Your task to perform on an android device: What's a good restaurant in San Jose? Image 0: 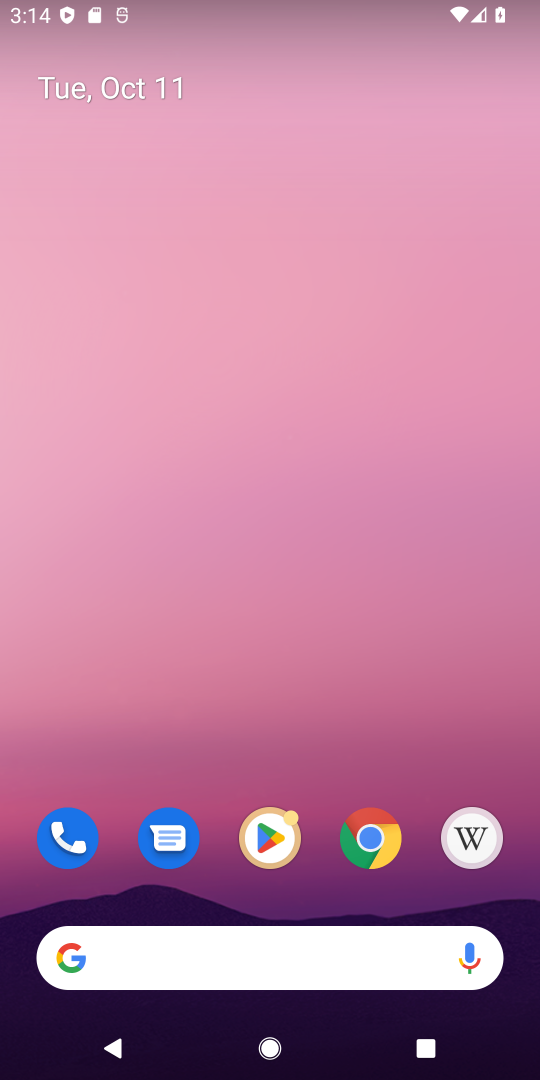
Step 0: click (305, 968)
Your task to perform on an android device: What's a good restaurant in San Jose? Image 1: 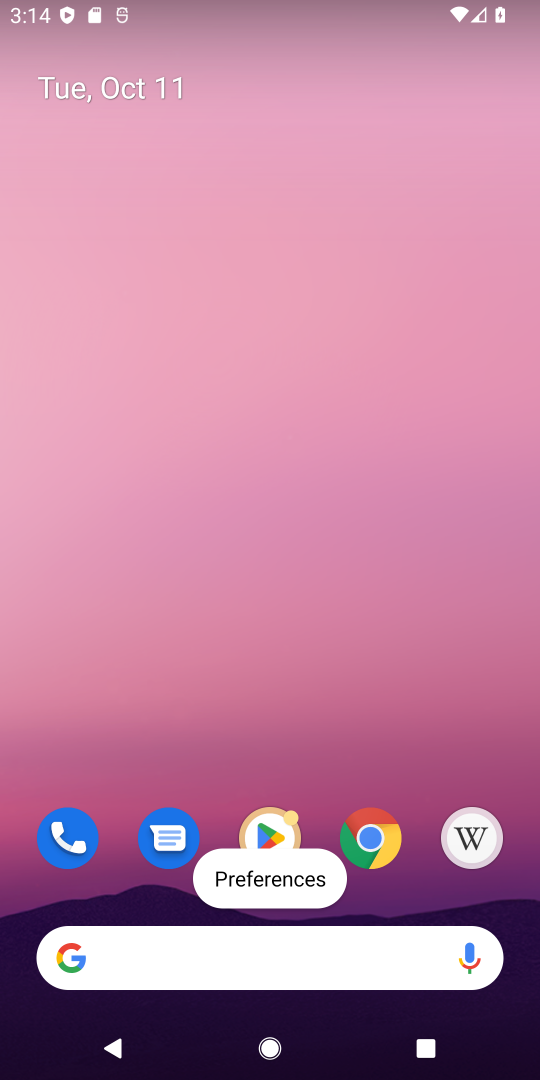
Step 1: click (293, 969)
Your task to perform on an android device: What's a good restaurant in San Jose? Image 2: 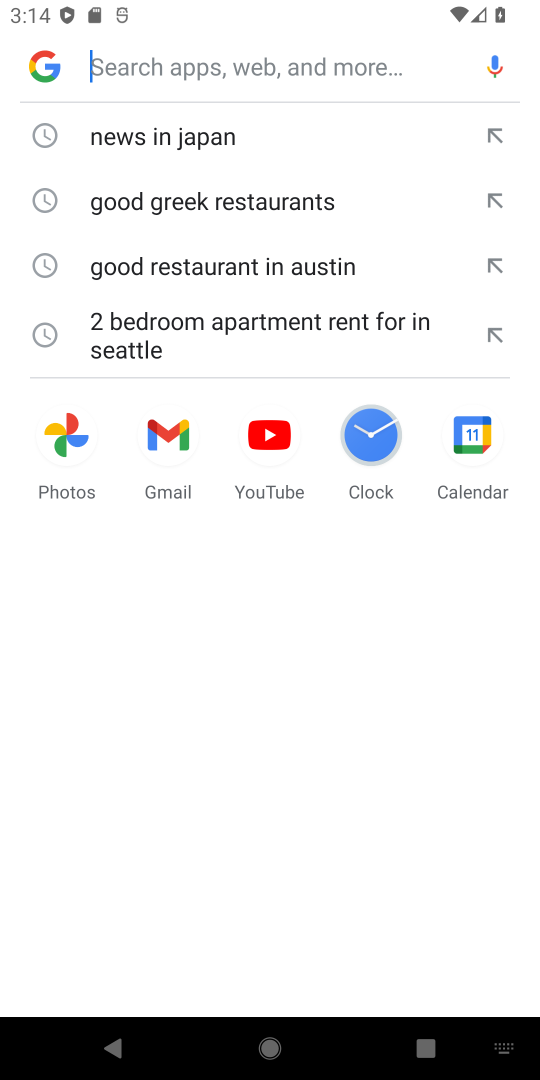
Step 2: type "good restaurant in San Jose"
Your task to perform on an android device: What's a good restaurant in San Jose? Image 3: 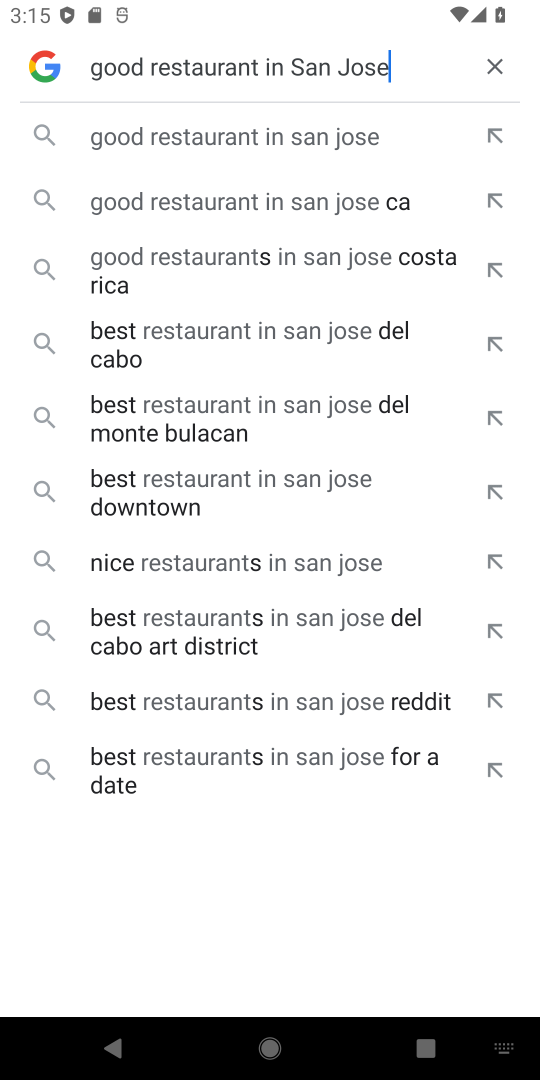
Step 3: click (365, 148)
Your task to perform on an android device: What's a good restaurant in San Jose? Image 4: 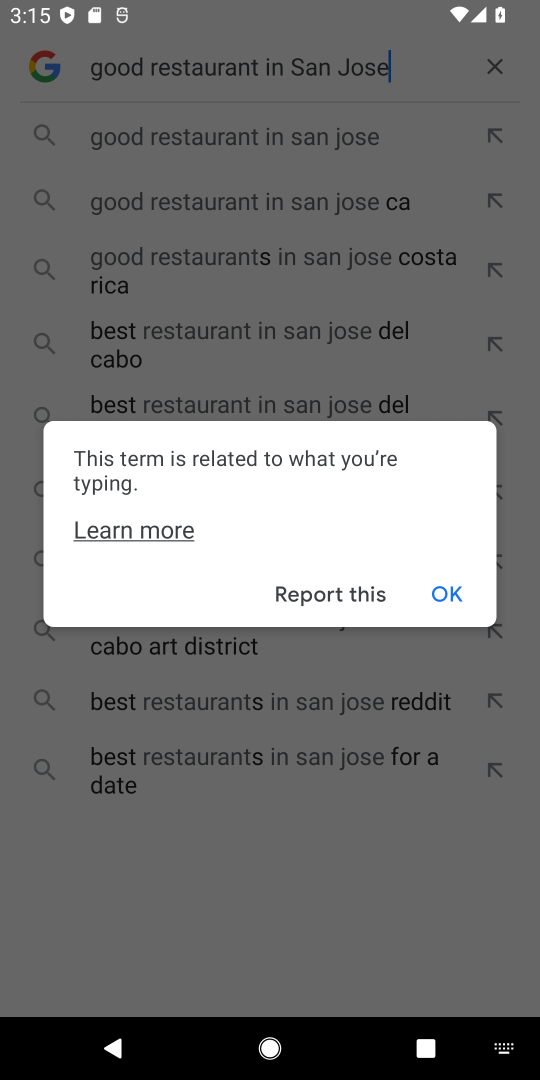
Step 4: click (451, 590)
Your task to perform on an android device: What's a good restaurant in San Jose? Image 5: 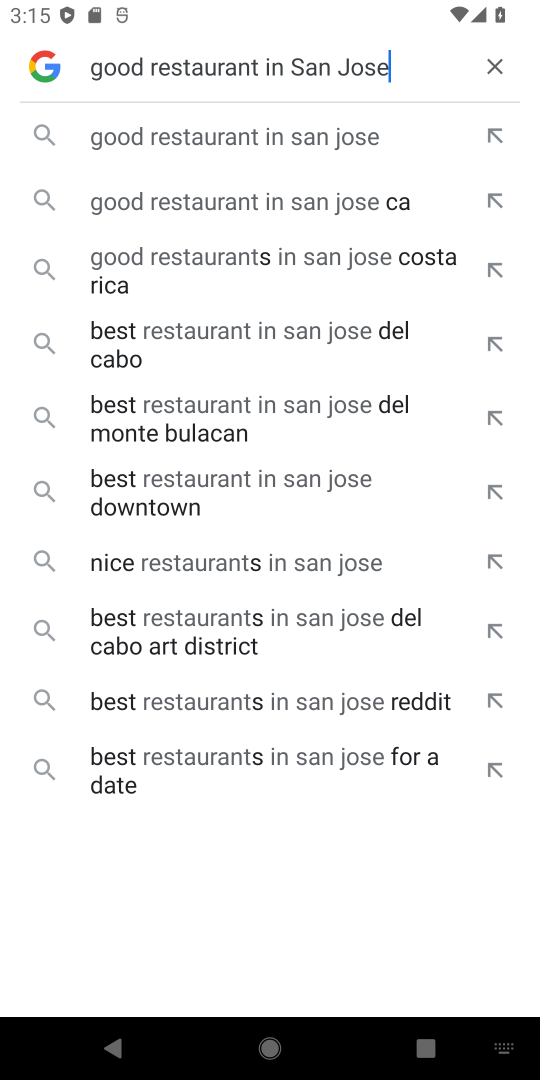
Step 5: click (150, 140)
Your task to perform on an android device: What's a good restaurant in San Jose? Image 6: 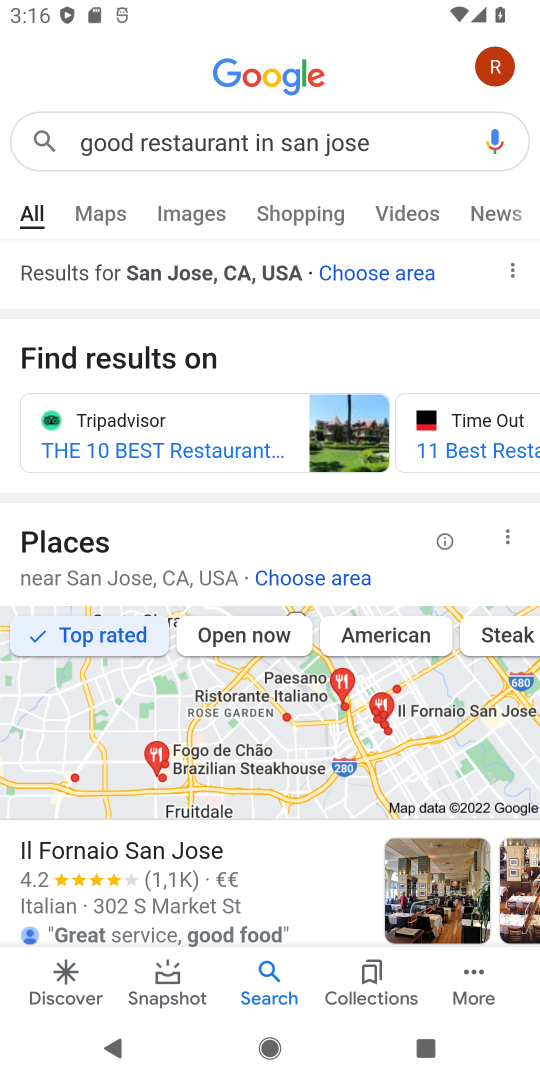
Step 6: task complete